Your task to perform on an android device: turn off javascript in the chrome app Image 0: 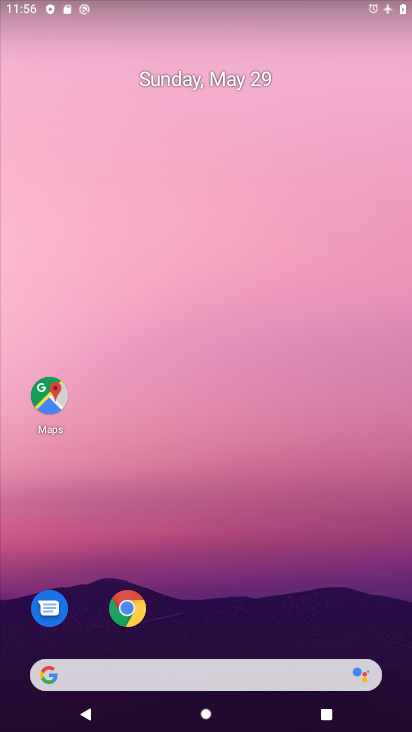
Step 0: click (134, 607)
Your task to perform on an android device: turn off javascript in the chrome app Image 1: 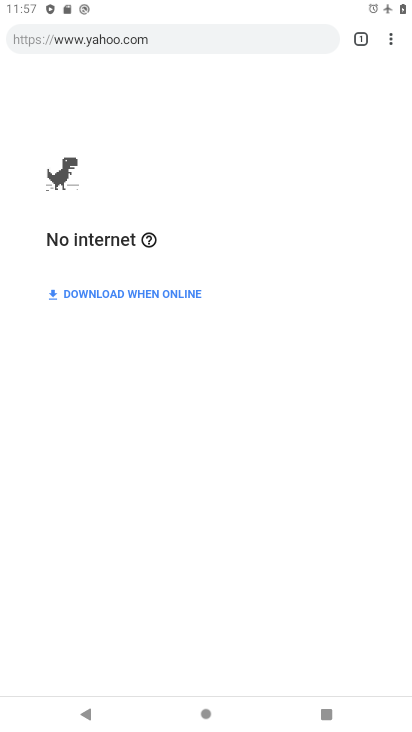
Step 1: click (388, 30)
Your task to perform on an android device: turn off javascript in the chrome app Image 2: 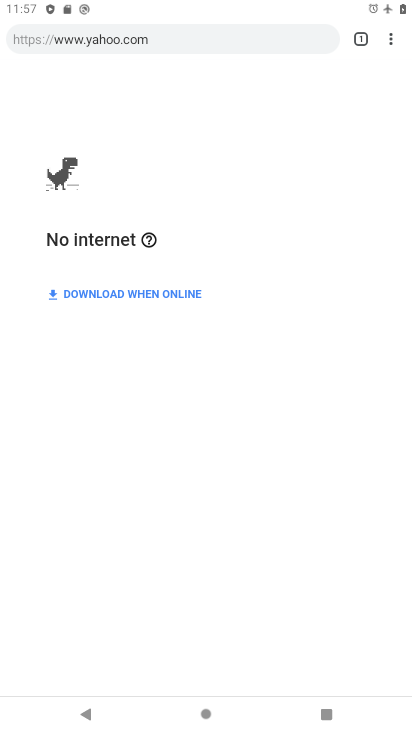
Step 2: drag from (389, 39) to (254, 427)
Your task to perform on an android device: turn off javascript in the chrome app Image 3: 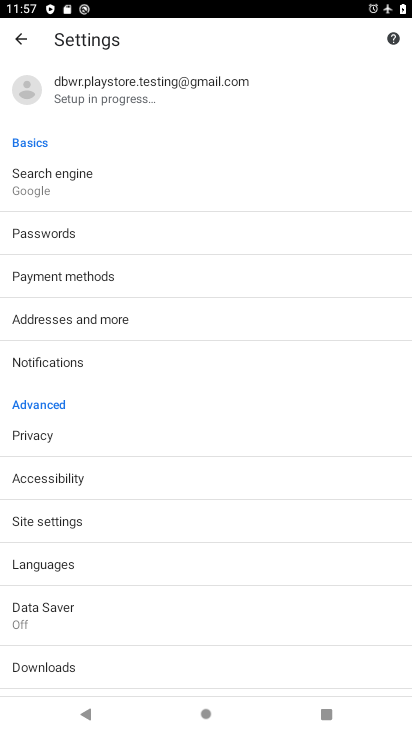
Step 3: click (86, 511)
Your task to perform on an android device: turn off javascript in the chrome app Image 4: 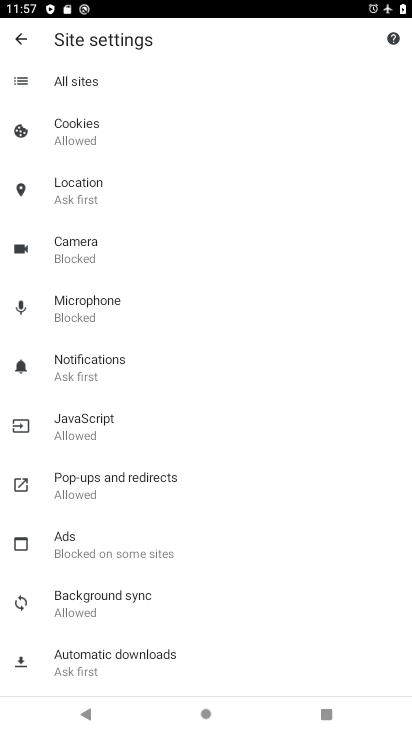
Step 4: click (108, 407)
Your task to perform on an android device: turn off javascript in the chrome app Image 5: 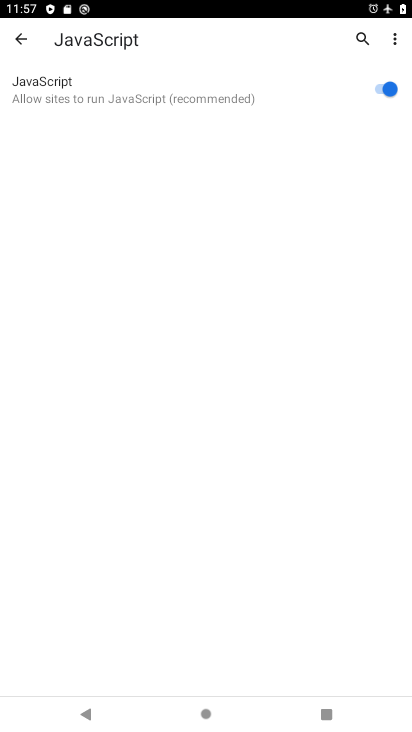
Step 5: click (374, 80)
Your task to perform on an android device: turn off javascript in the chrome app Image 6: 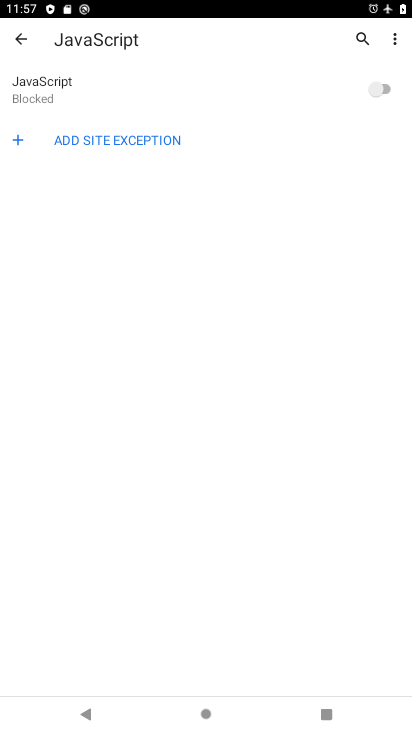
Step 6: task complete